Your task to perform on an android device: open a bookmark in the chrome app Image 0: 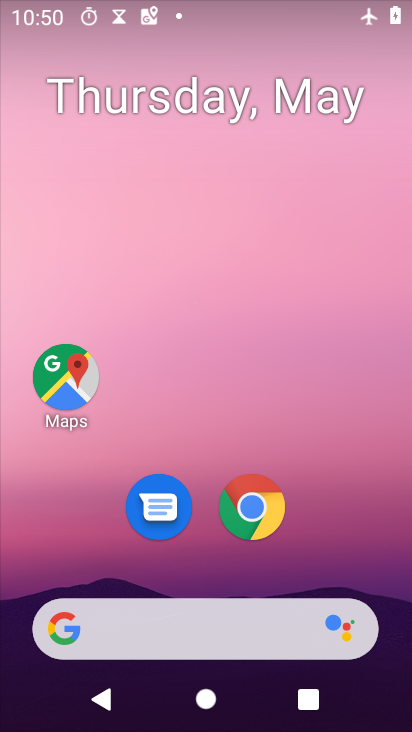
Step 0: drag from (363, 523) to (263, 5)
Your task to perform on an android device: open a bookmark in the chrome app Image 1: 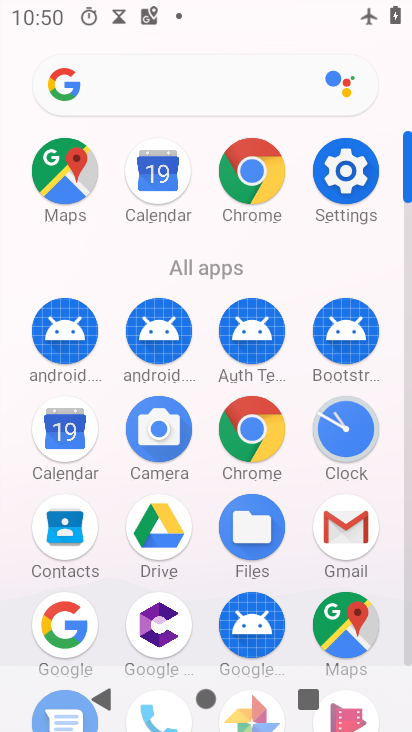
Step 1: drag from (8, 536) to (3, 237)
Your task to perform on an android device: open a bookmark in the chrome app Image 2: 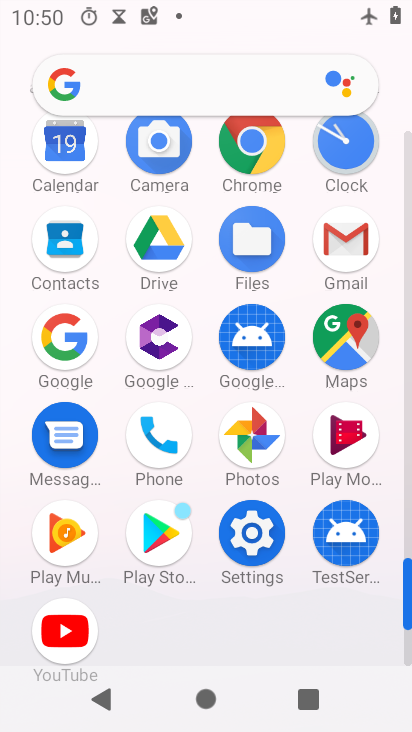
Step 2: click (251, 139)
Your task to perform on an android device: open a bookmark in the chrome app Image 3: 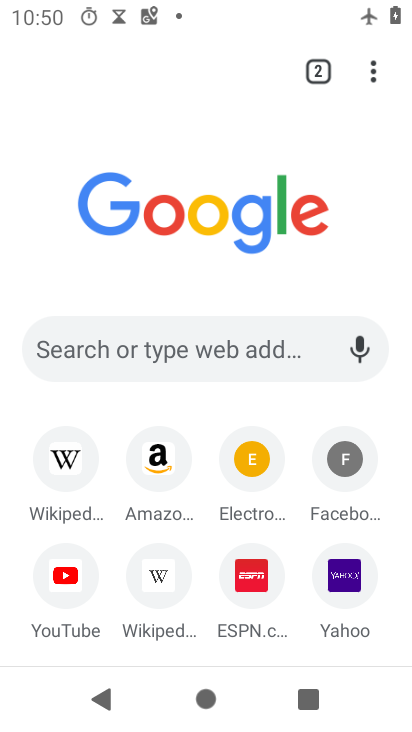
Step 3: task complete